Your task to perform on an android device: turn on the 12-hour format for clock Image 0: 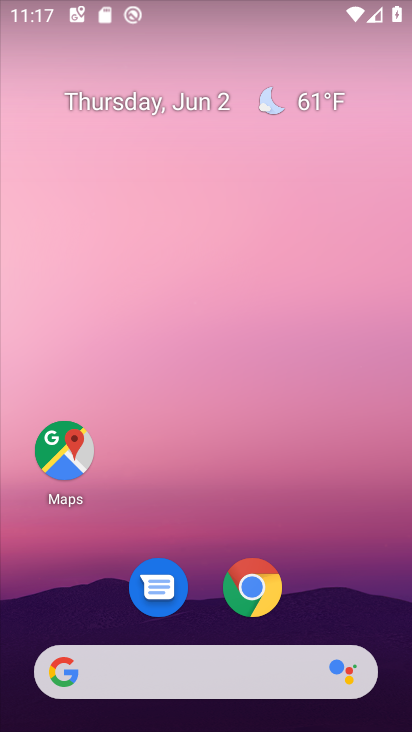
Step 0: drag from (325, 606) to (329, 3)
Your task to perform on an android device: turn on the 12-hour format for clock Image 1: 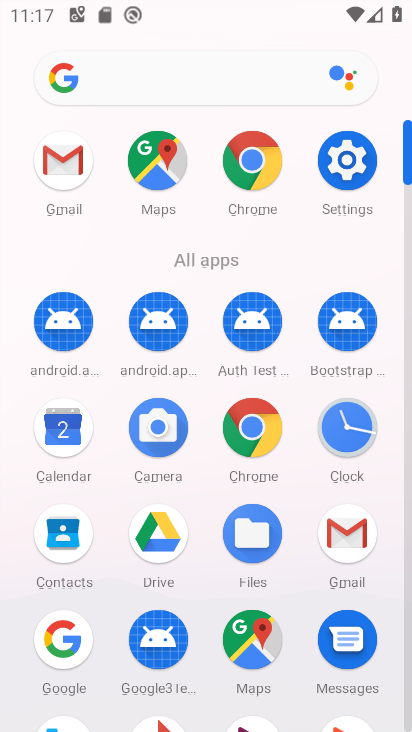
Step 1: click (351, 424)
Your task to perform on an android device: turn on the 12-hour format for clock Image 2: 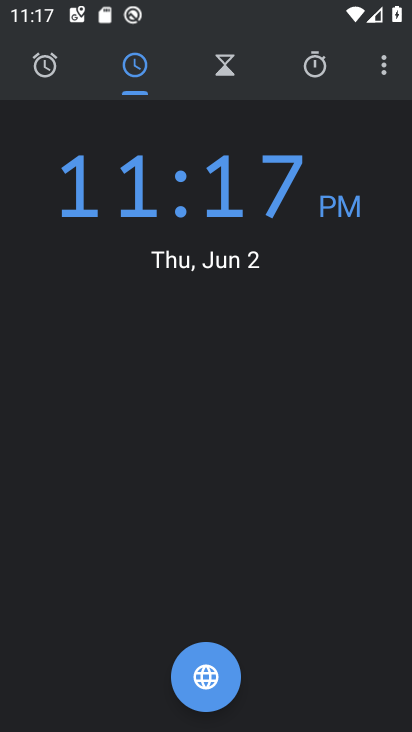
Step 2: click (385, 65)
Your task to perform on an android device: turn on the 12-hour format for clock Image 3: 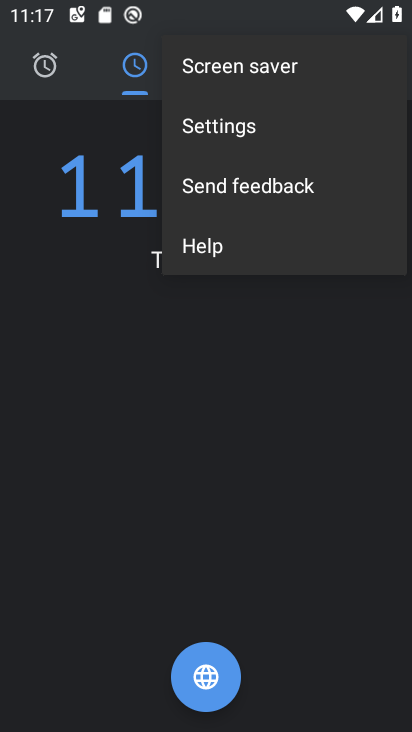
Step 3: click (307, 143)
Your task to perform on an android device: turn on the 12-hour format for clock Image 4: 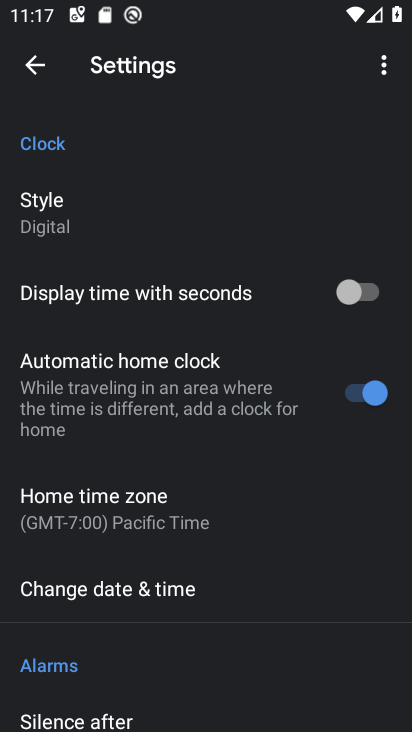
Step 4: click (312, 608)
Your task to perform on an android device: turn on the 12-hour format for clock Image 5: 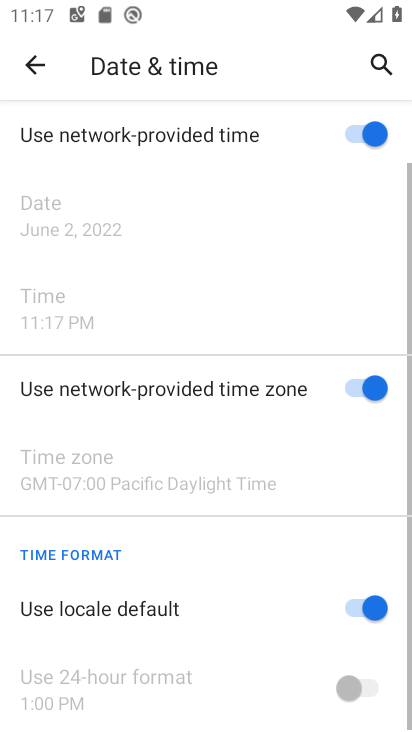
Step 5: task complete